Your task to perform on an android device: turn on notifications settings in the gmail app Image 0: 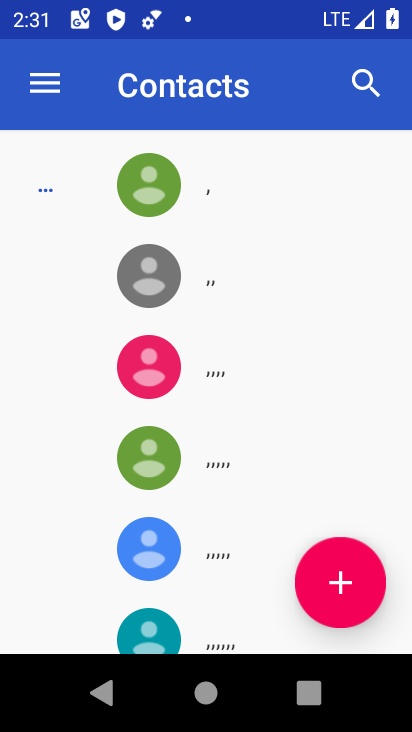
Step 0: press home button
Your task to perform on an android device: turn on notifications settings in the gmail app Image 1: 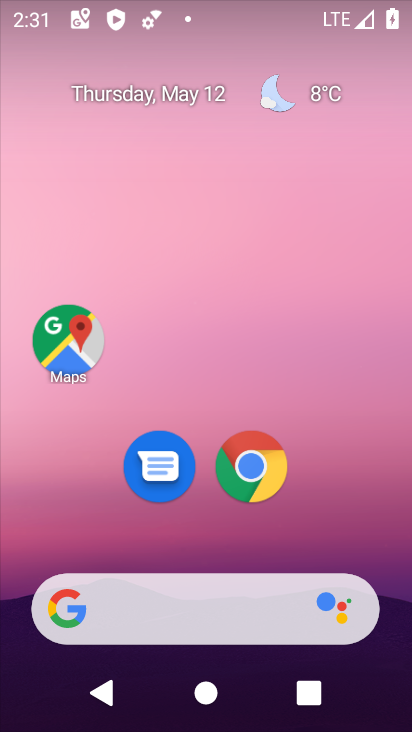
Step 1: drag from (315, 497) to (154, 106)
Your task to perform on an android device: turn on notifications settings in the gmail app Image 2: 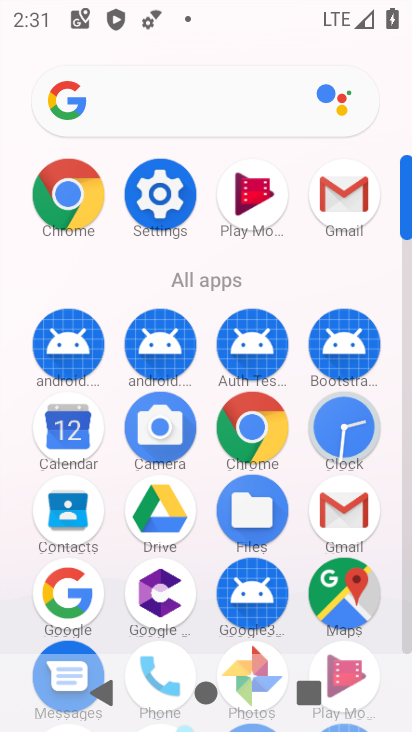
Step 2: click (335, 203)
Your task to perform on an android device: turn on notifications settings in the gmail app Image 3: 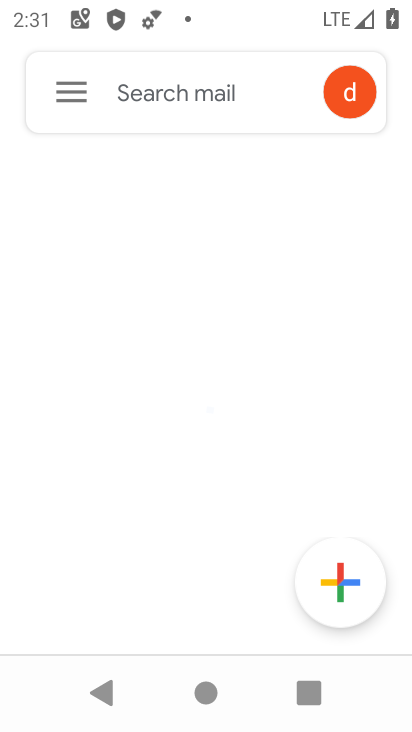
Step 3: click (66, 85)
Your task to perform on an android device: turn on notifications settings in the gmail app Image 4: 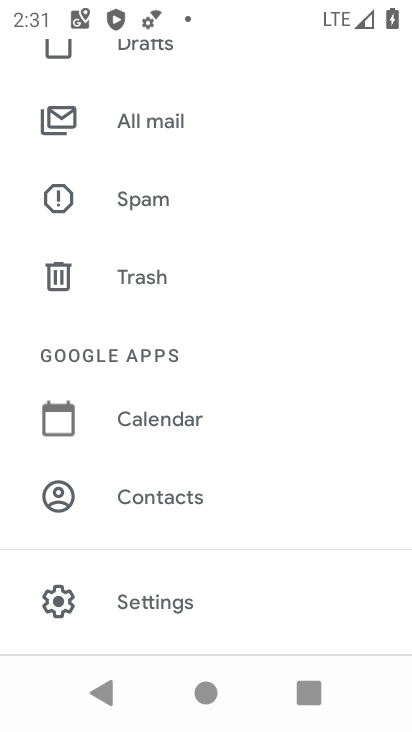
Step 4: click (138, 605)
Your task to perform on an android device: turn on notifications settings in the gmail app Image 5: 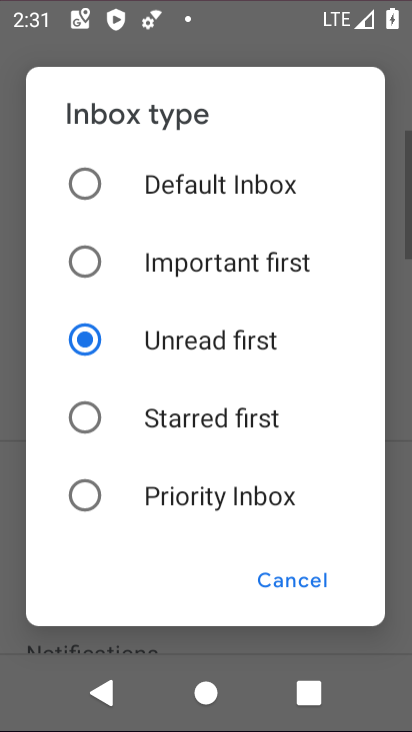
Step 5: drag from (138, 605) to (403, 588)
Your task to perform on an android device: turn on notifications settings in the gmail app Image 6: 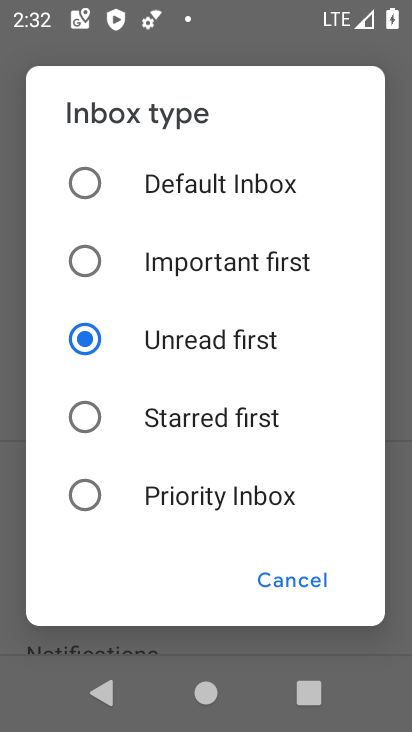
Step 6: press back button
Your task to perform on an android device: turn on notifications settings in the gmail app Image 7: 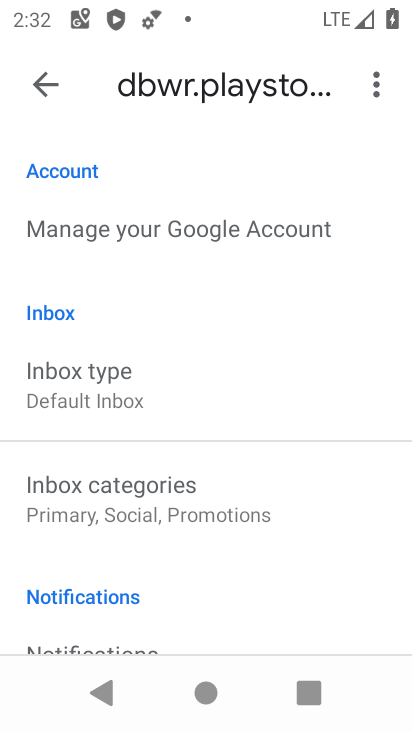
Step 7: drag from (166, 590) to (205, 164)
Your task to perform on an android device: turn on notifications settings in the gmail app Image 8: 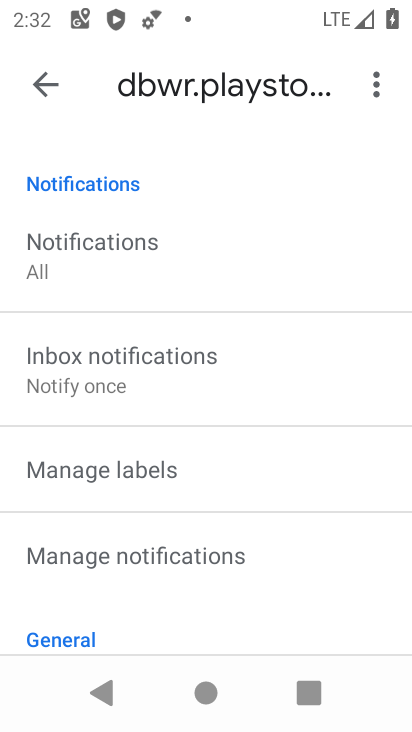
Step 8: drag from (175, 588) to (173, 430)
Your task to perform on an android device: turn on notifications settings in the gmail app Image 9: 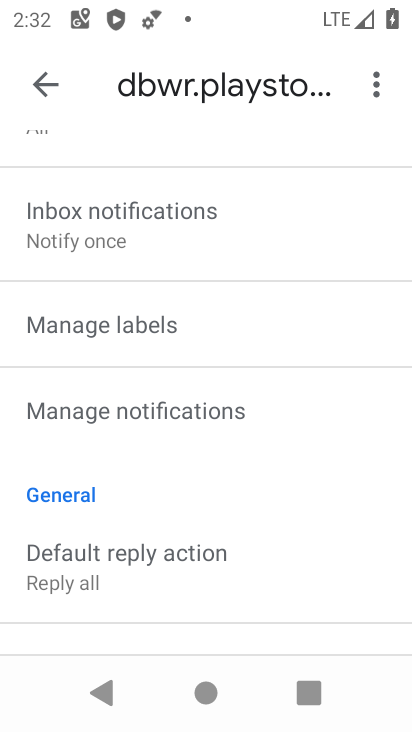
Step 9: click (156, 416)
Your task to perform on an android device: turn on notifications settings in the gmail app Image 10: 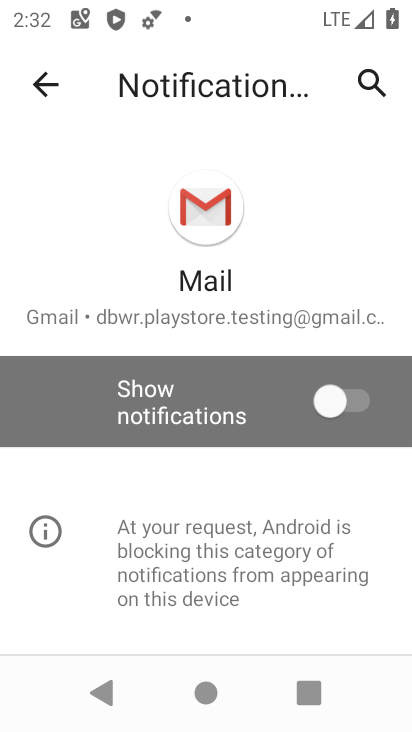
Step 10: click (328, 400)
Your task to perform on an android device: turn on notifications settings in the gmail app Image 11: 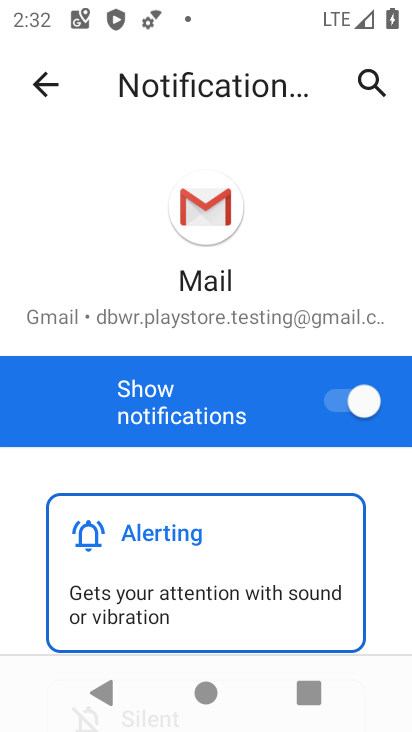
Step 11: task complete